Your task to perform on an android device: open chrome and create a bookmark for the current page Image 0: 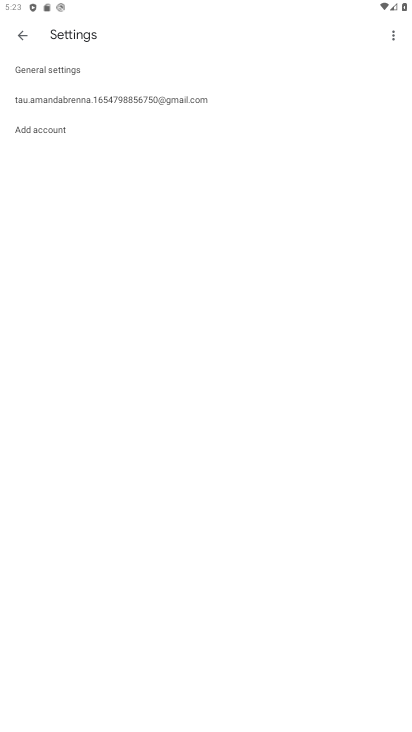
Step 0: press home button
Your task to perform on an android device: open chrome and create a bookmark for the current page Image 1: 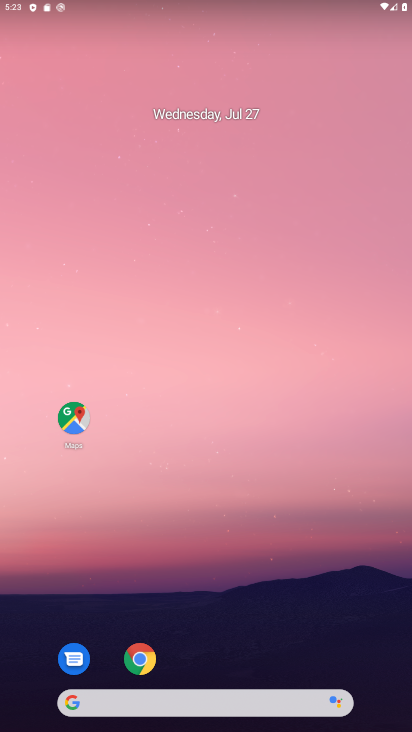
Step 1: drag from (332, 5) to (273, 473)
Your task to perform on an android device: open chrome and create a bookmark for the current page Image 2: 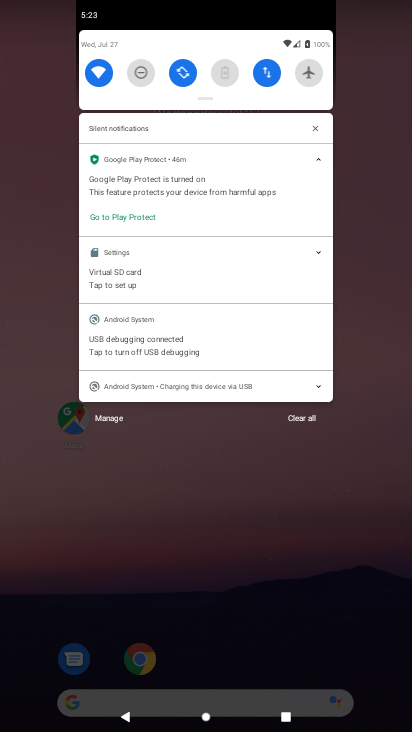
Step 2: click (240, 468)
Your task to perform on an android device: open chrome and create a bookmark for the current page Image 3: 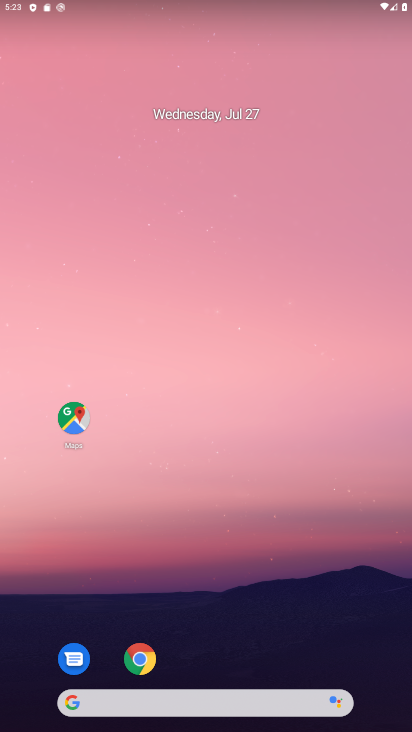
Step 3: click (140, 658)
Your task to perform on an android device: open chrome and create a bookmark for the current page Image 4: 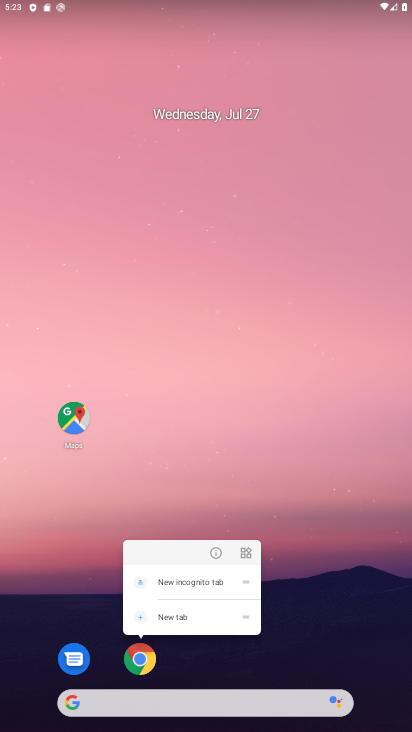
Step 4: click (146, 657)
Your task to perform on an android device: open chrome and create a bookmark for the current page Image 5: 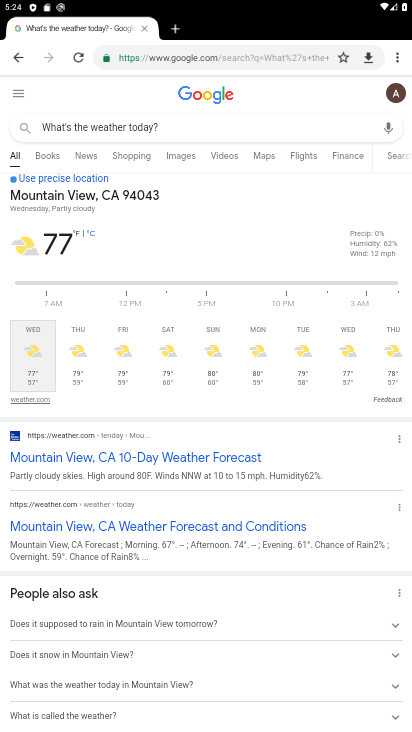
Step 5: drag from (397, 51) to (299, 112)
Your task to perform on an android device: open chrome and create a bookmark for the current page Image 6: 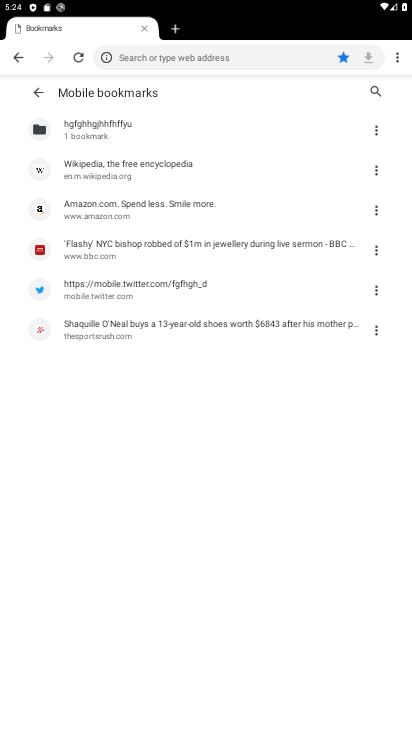
Step 6: click (17, 53)
Your task to perform on an android device: open chrome and create a bookmark for the current page Image 7: 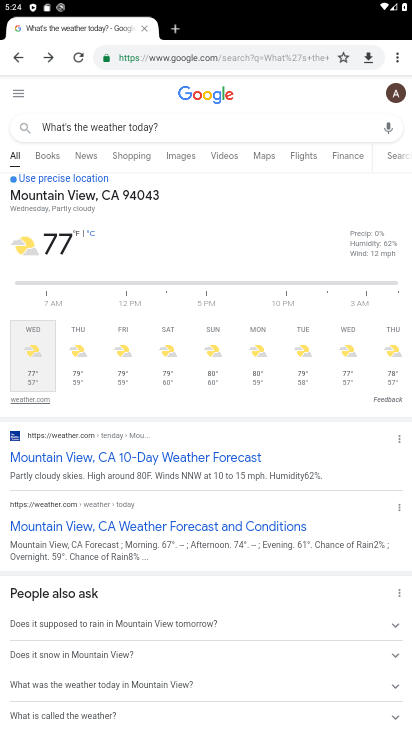
Step 7: click (344, 53)
Your task to perform on an android device: open chrome and create a bookmark for the current page Image 8: 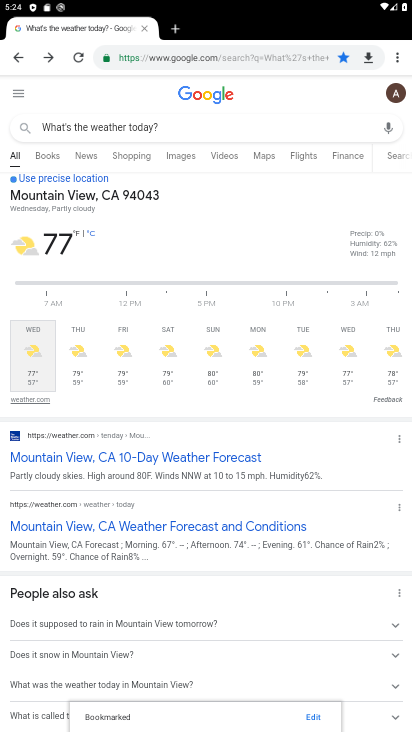
Step 8: task complete